Your task to perform on an android device: Go to network settings Image 0: 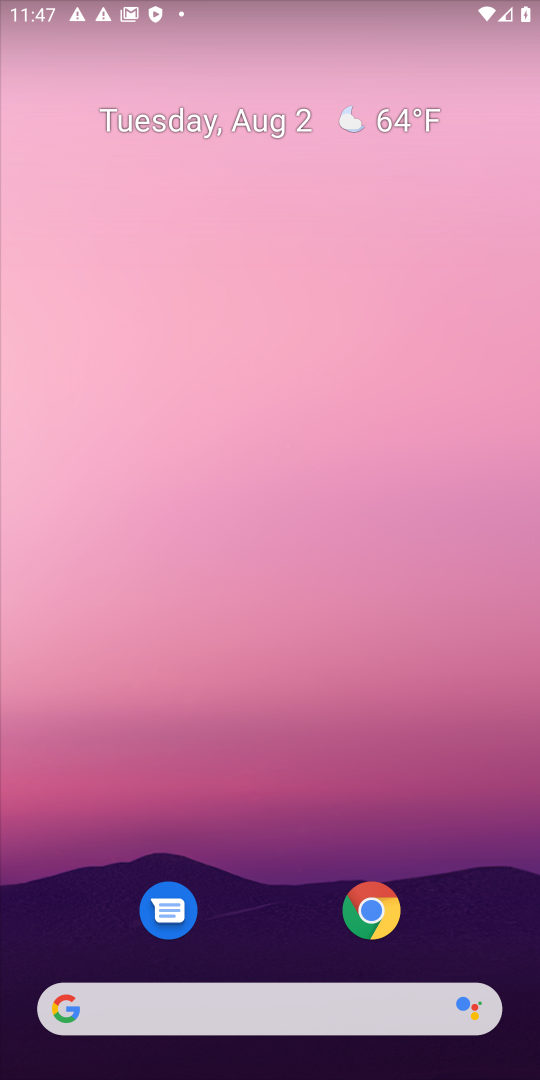
Step 0: drag from (298, 839) to (267, 89)
Your task to perform on an android device: Go to network settings Image 1: 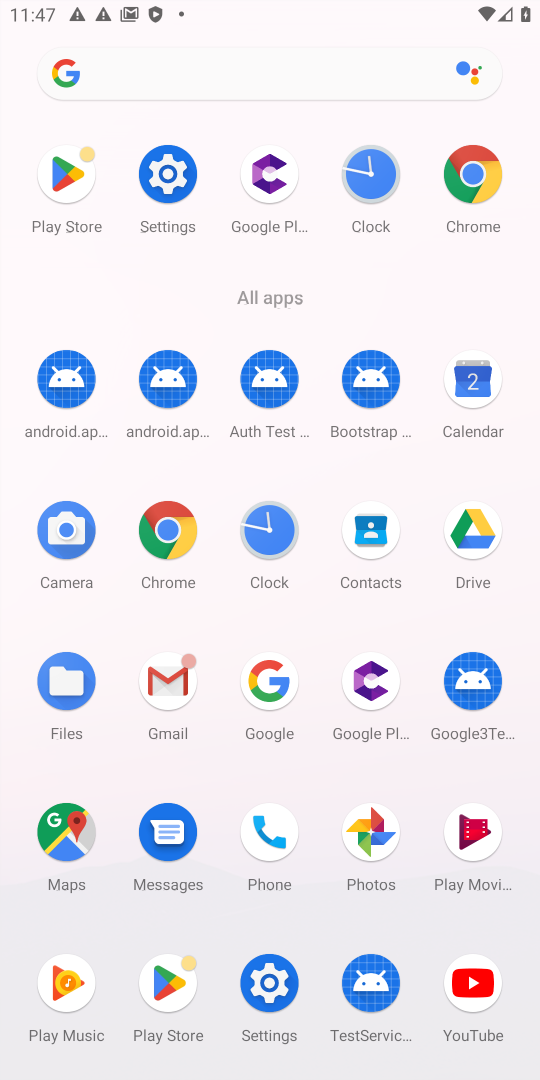
Step 1: click (168, 173)
Your task to perform on an android device: Go to network settings Image 2: 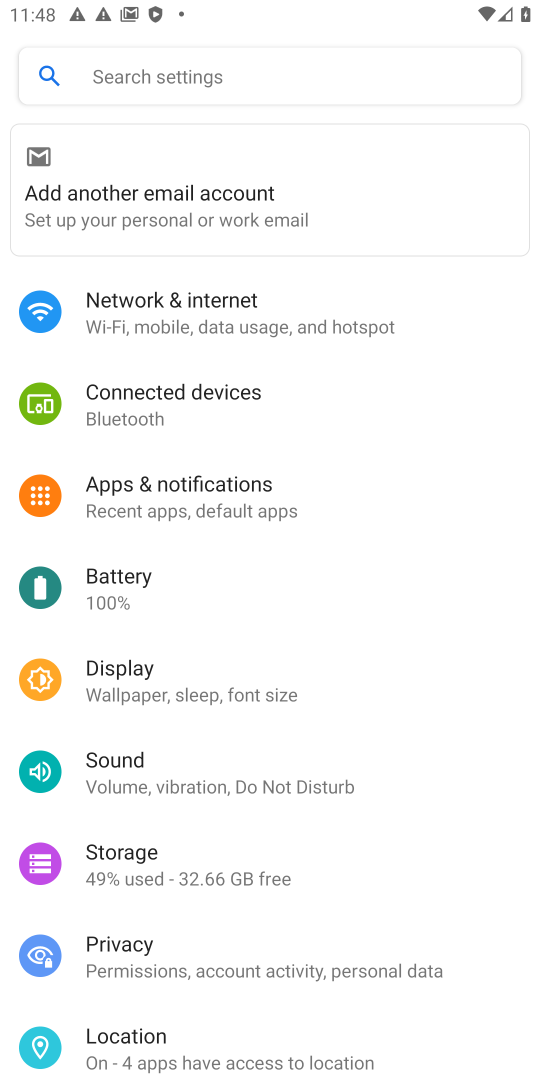
Step 2: click (128, 334)
Your task to perform on an android device: Go to network settings Image 3: 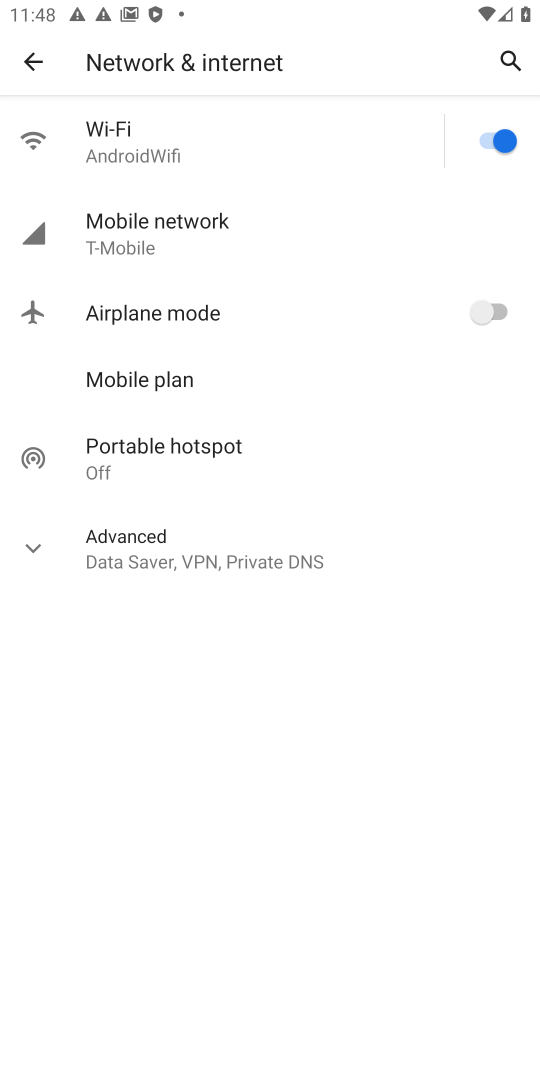
Step 3: click (109, 247)
Your task to perform on an android device: Go to network settings Image 4: 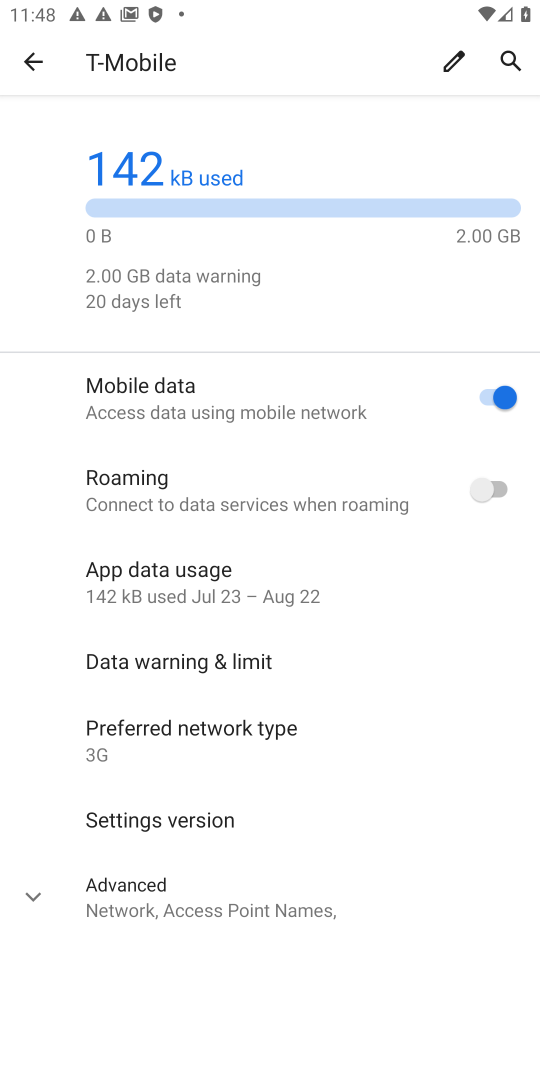
Step 4: task complete